Your task to perform on an android device: toggle sleep mode Image 0: 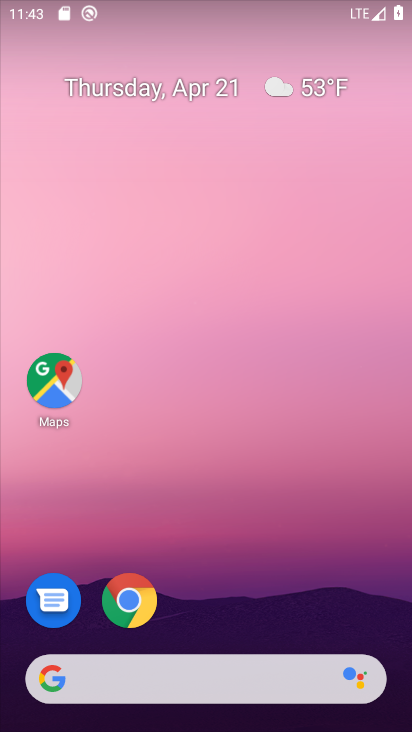
Step 0: drag from (220, 528) to (207, 63)
Your task to perform on an android device: toggle sleep mode Image 1: 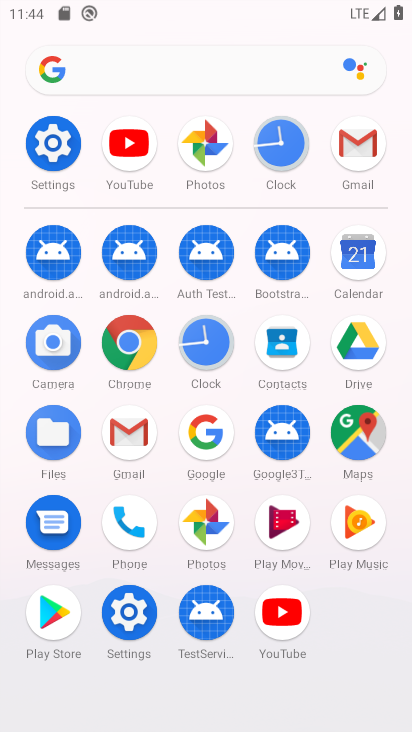
Step 1: click (42, 156)
Your task to perform on an android device: toggle sleep mode Image 2: 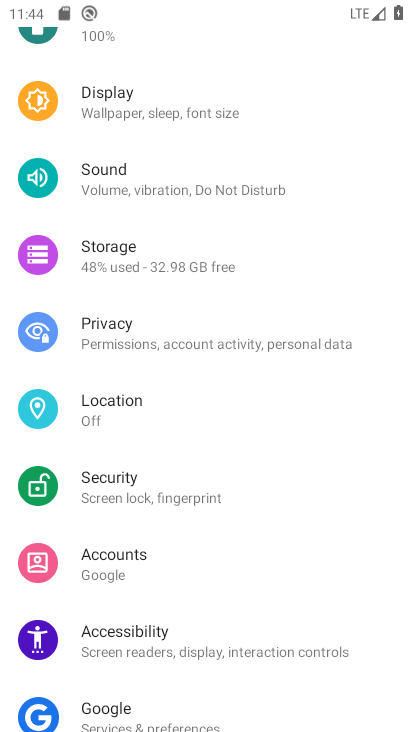
Step 2: click (139, 96)
Your task to perform on an android device: toggle sleep mode Image 3: 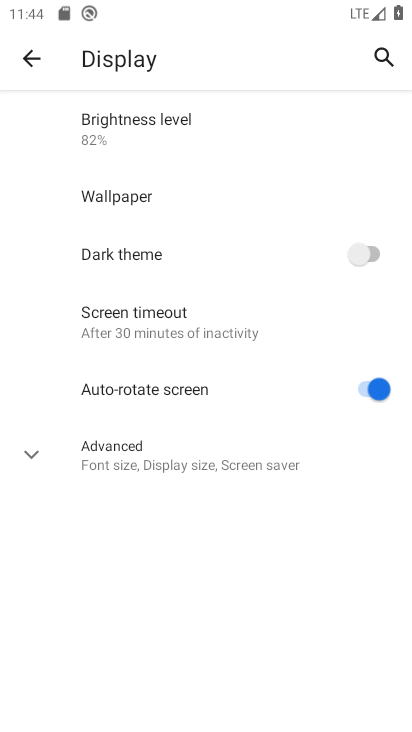
Step 3: task complete